Your task to perform on an android device: clear history in the chrome app Image 0: 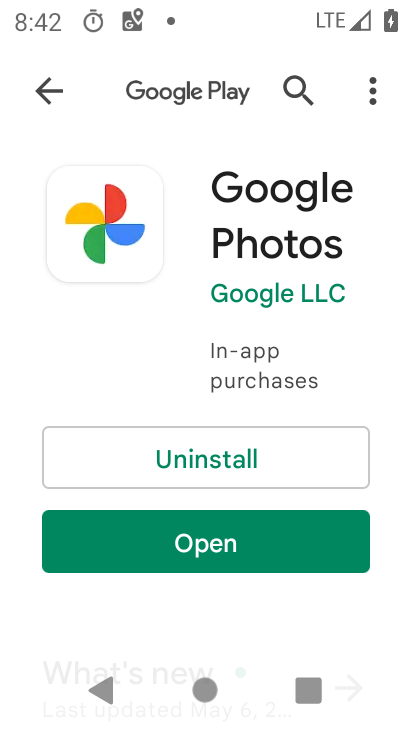
Step 0: press home button
Your task to perform on an android device: clear history in the chrome app Image 1: 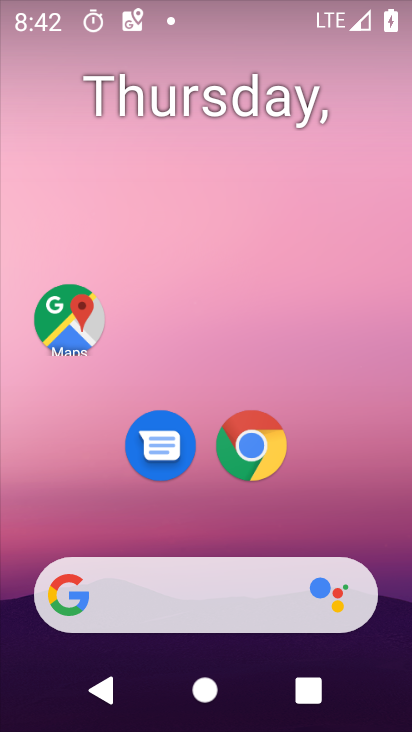
Step 1: click (252, 443)
Your task to perform on an android device: clear history in the chrome app Image 2: 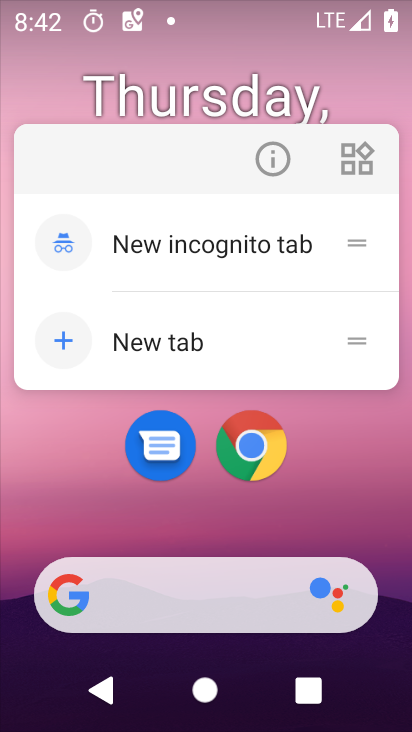
Step 2: click (270, 151)
Your task to perform on an android device: clear history in the chrome app Image 3: 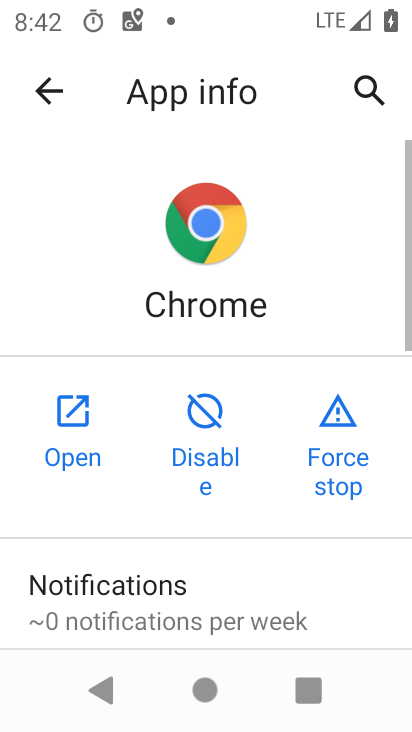
Step 3: click (75, 424)
Your task to perform on an android device: clear history in the chrome app Image 4: 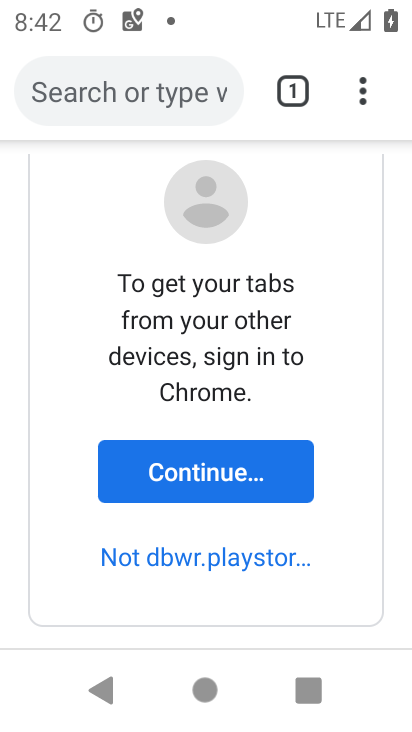
Step 4: click (178, 468)
Your task to perform on an android device: clear history in the chrome app Image 5: 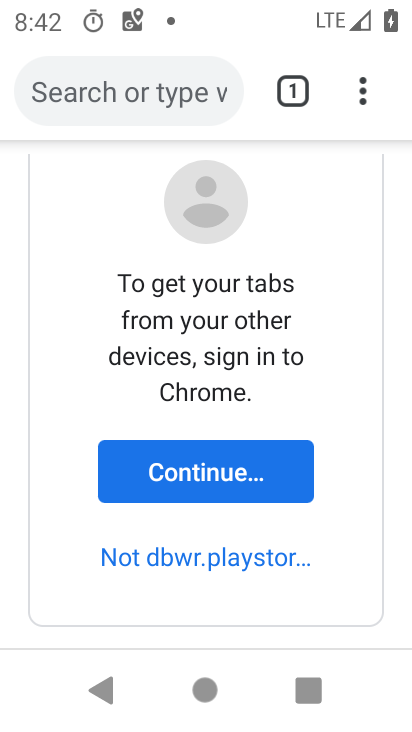
Step 5: click (178, 468)
Your task to perform on an android device: clear history in the chrome app Image 6: 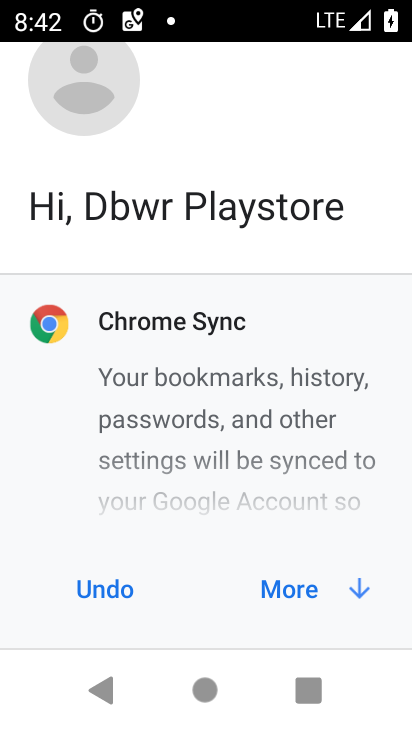
Step 6: click (279, 598)
Your task to perform on an android device: clear history in the chrome app Image 7: 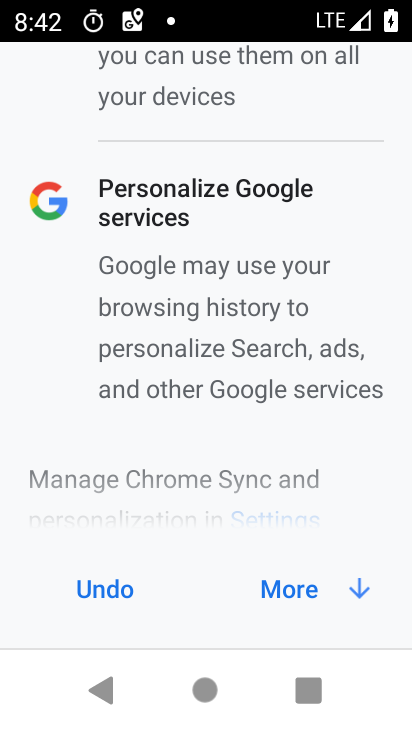
Step 7: click (235, 588)
Your task to perform on an android device: clear history in the chrome app Image 8: 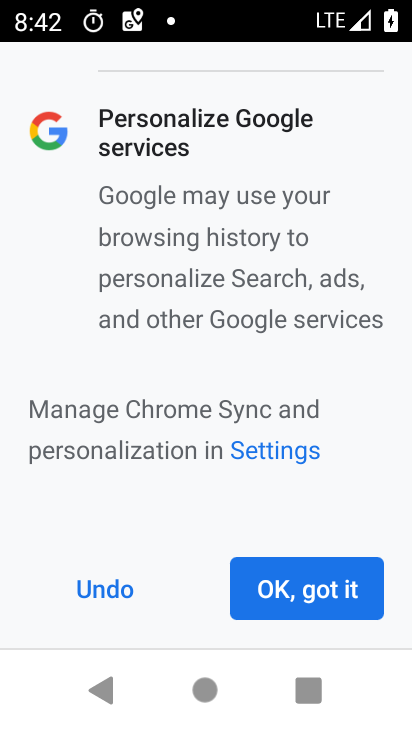
Step 8: click (295, 591)
Your task to perform on an android device: clear history in the chrome app Image 9: 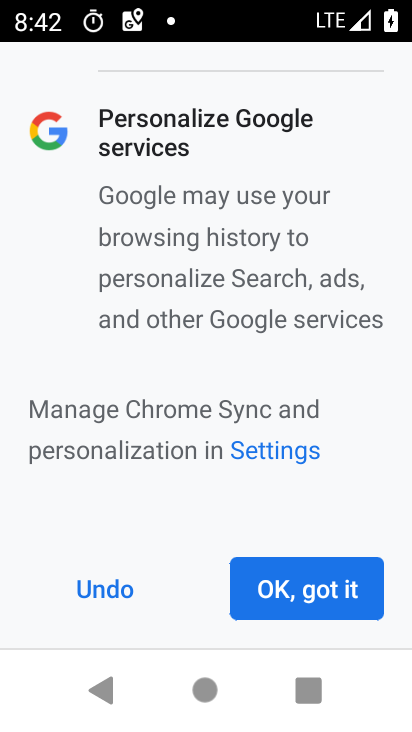
Step 9: click (284, 587)
Your task to perform on an android device: clear history in the chrome app Image 10: 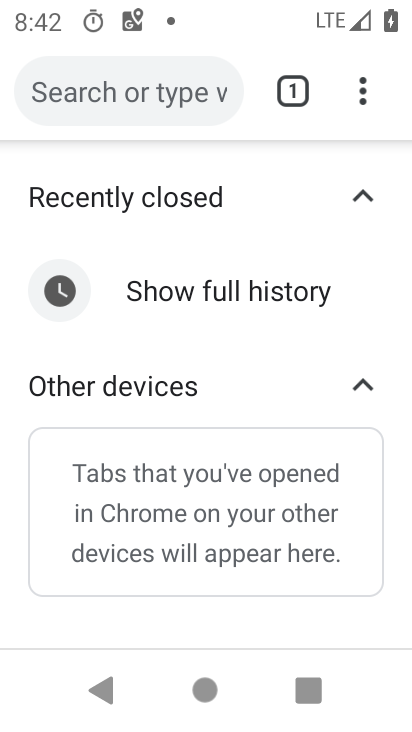
Step 10: drag from (363, 84) to (181, 491)
Your task to perform on an android device: clear history in the chrome app Image 11: 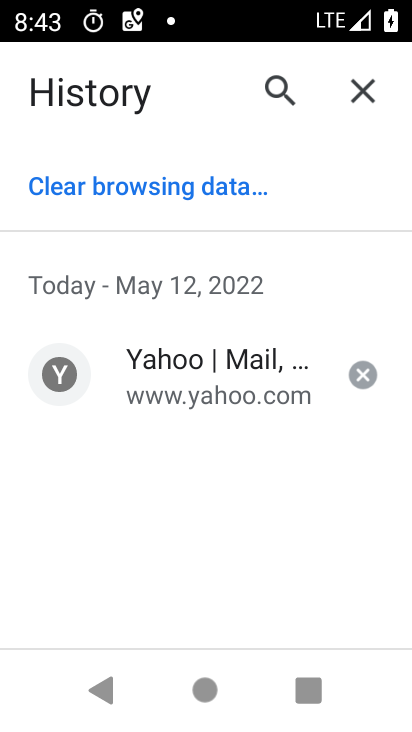
Step 11: drag from (163, 577) to (250, 310)
Your task to perform on an android device: clear history in the chrome app Image 12: 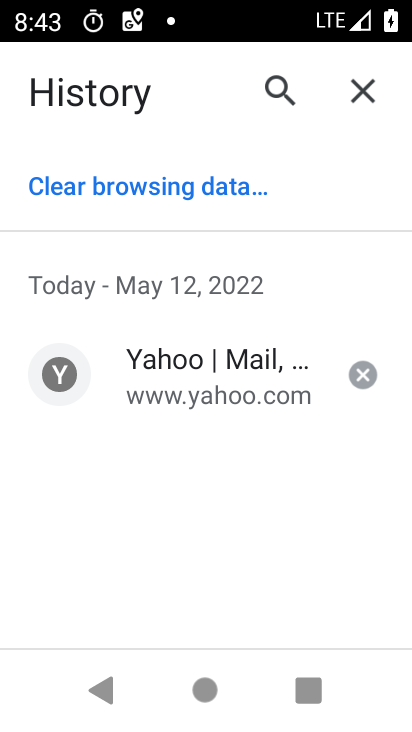
Step 12: click (73, 173)
Your task to perform on an android device: clear history in the chrome app Image 13: 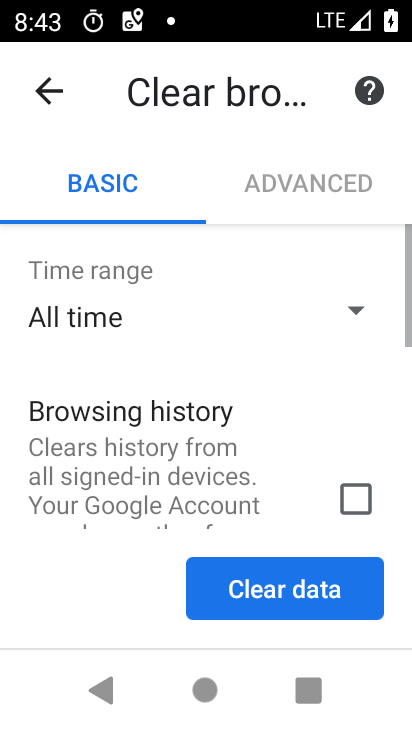
Step 13: click (282, 579)
Your task to perform on an android device: clear history in the chrome app Image 14: 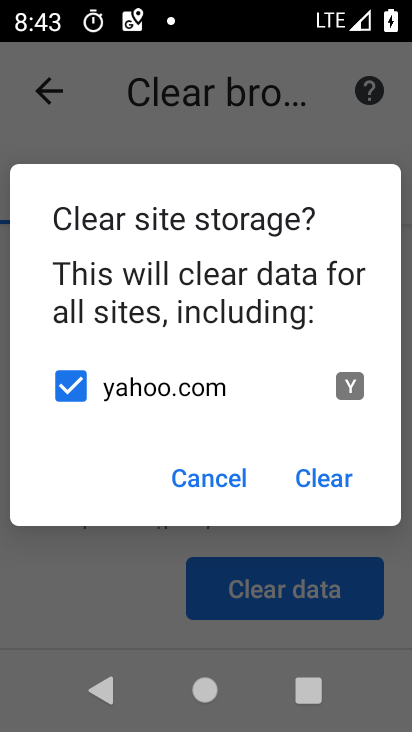
Step 14: click (315, 493)
Your task to perform on an android device: clear history in the chrome app Image 15: 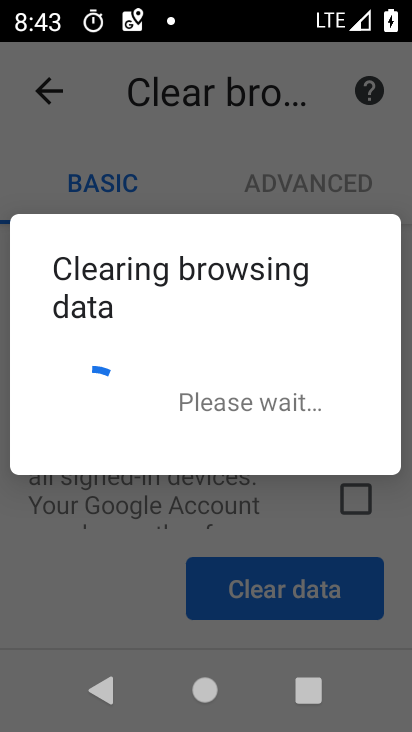
Step 15: click (287, 496)
Your task to perform on an android device: clear history in the chrome app Image 16: 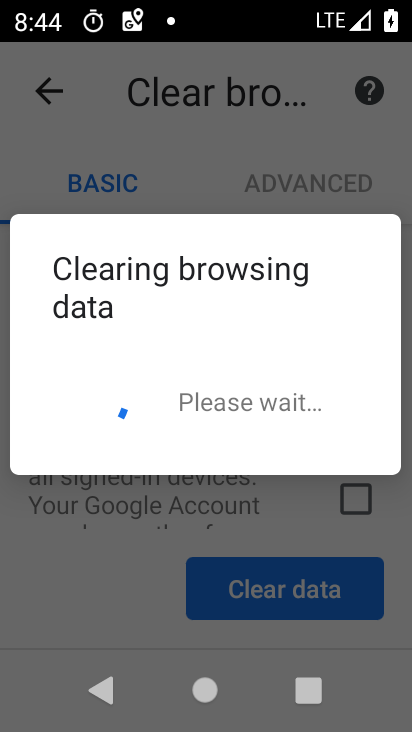
Step 16: task complete